Your task to perform on an android device: turn off priority inbox in the gmail app Image 0: 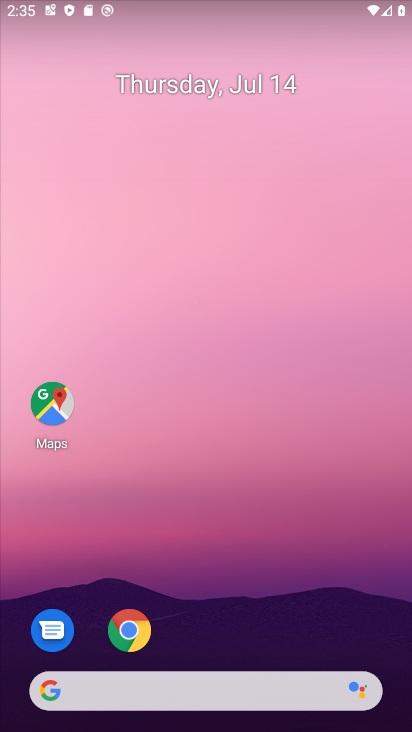
Step 0: press home button
Your task to perform on an android device: turn off priority inbox in the gmail app Image 1: 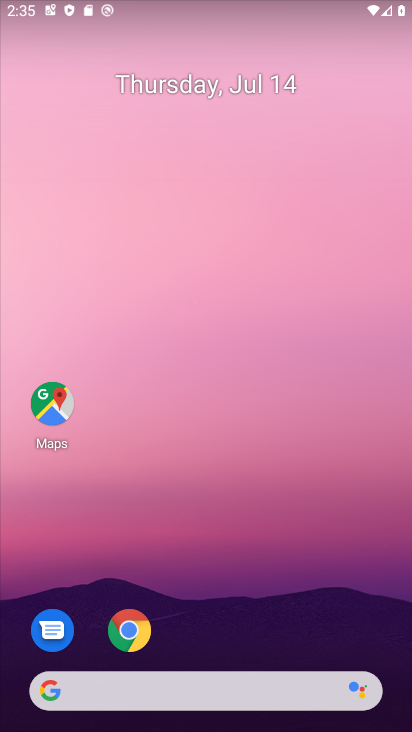
Step 1: drag from (217, 642) to (211, 52)
Your task to perform on an android device: turn off priority inbox in the gmail app Image 2: 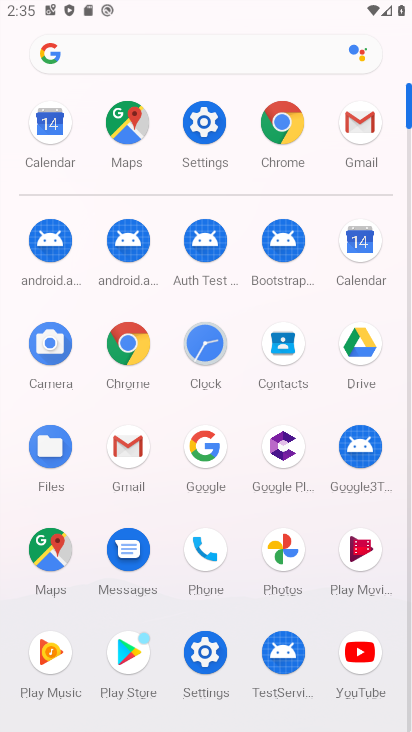
Step 2: click (130, 437)
Your task to perform on an android device: turn off priority inbox in the gmail app Image 3: 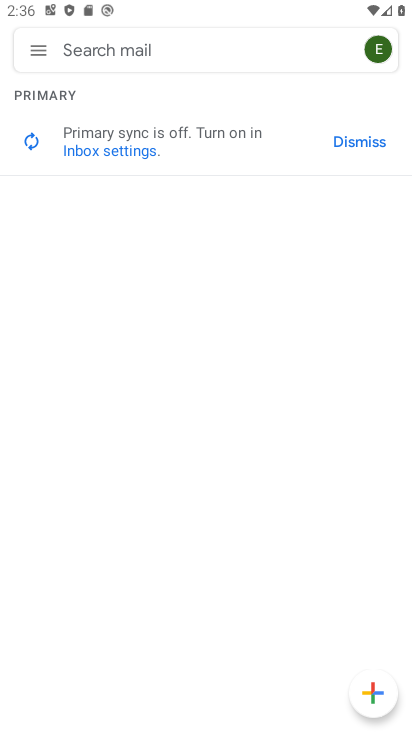
Step 3: click (34, 39)
Your task to perform on an android device: turn off priority inbox in the gmail app Image 4: 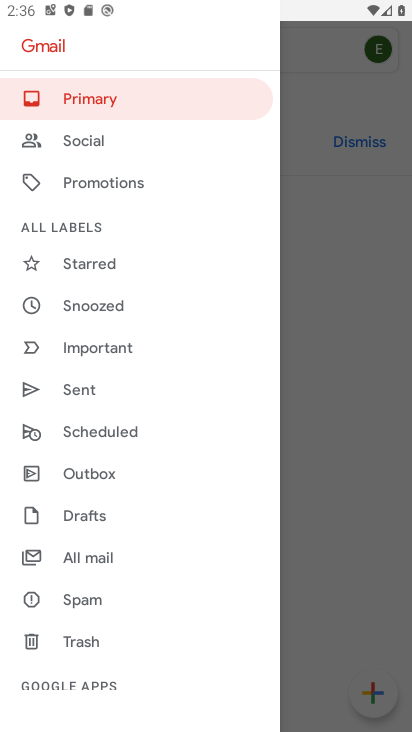
Step 4: drag from (146, 625) to (167, 186)
Your task to perform on an android device: turn off priority inbox in the gmail app Image 5: 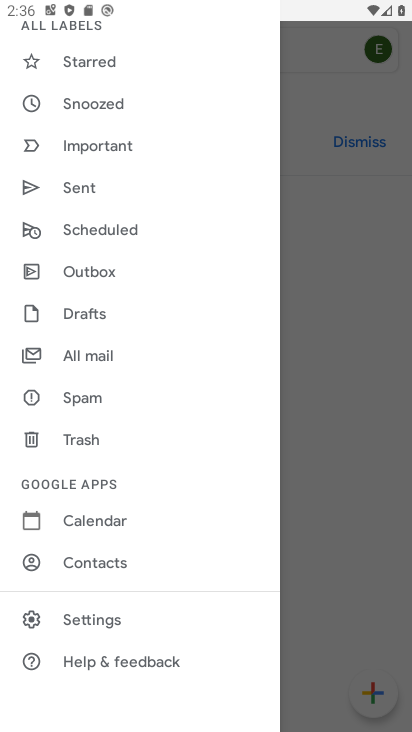
Step 5: click (122, 612)
Your task to perform on an android device: turn off priority inbox in the gmail app Image 6: 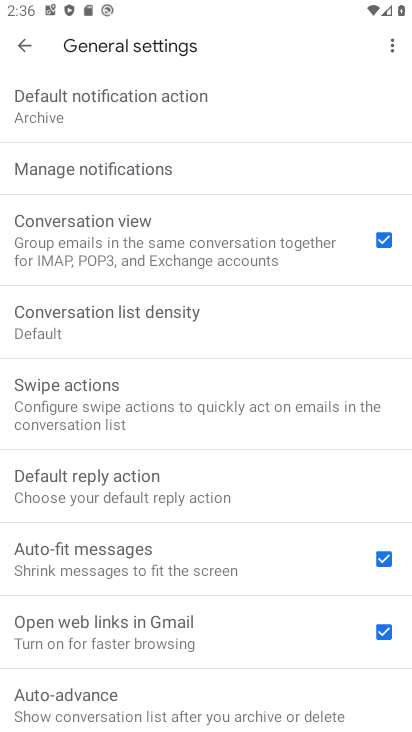
Step 6: drag from (169, 660) to (150, 166)
Your task to perform on an android device: turn off priority inbox in the gmail app Image 7: 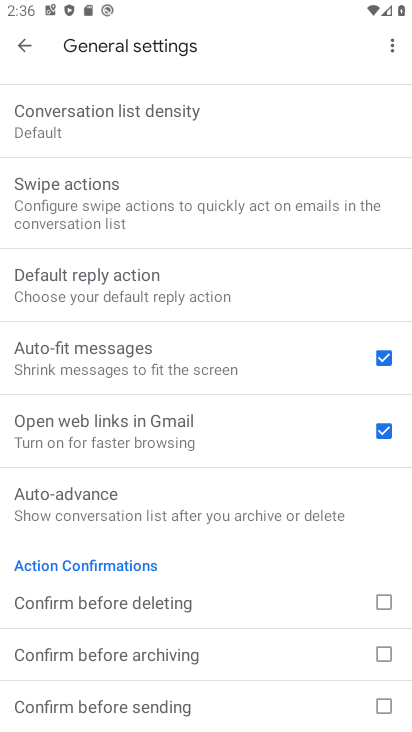
Step 7: click (30, 36)
Your task to perform on an android device: turn off priority inbox in the gmail app Image 8: 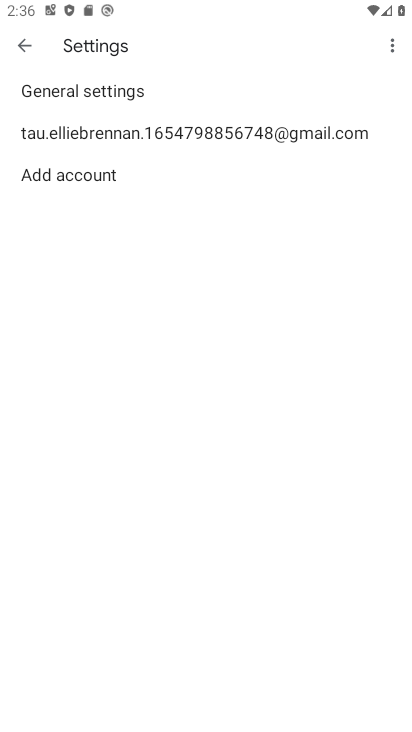
Step 8: click (206, 127)
Your task to perform on an android device: turn off priority inbox in the gmail app Image 9: 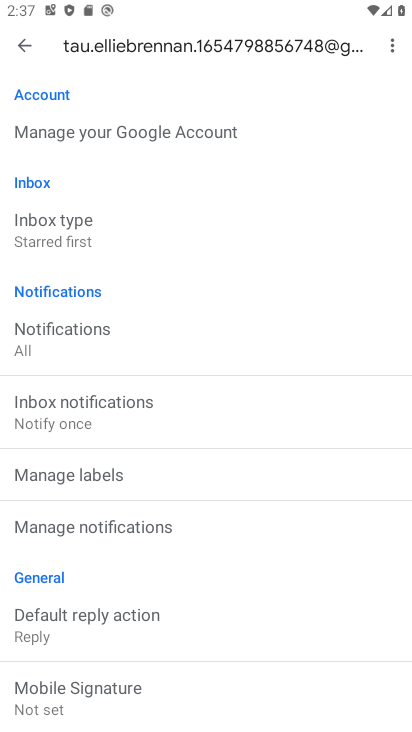
Step 9: click (72, 229)
Your task to perform on an android device: turn off priority inbox in the gmail app Image 10: 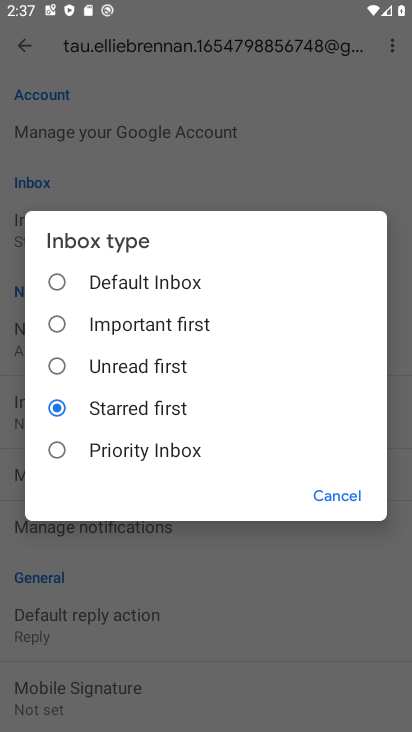
Step 10: click (63, 448)
Your task to perform on an android device: turn off priority inbox in the gmail app Image 11: 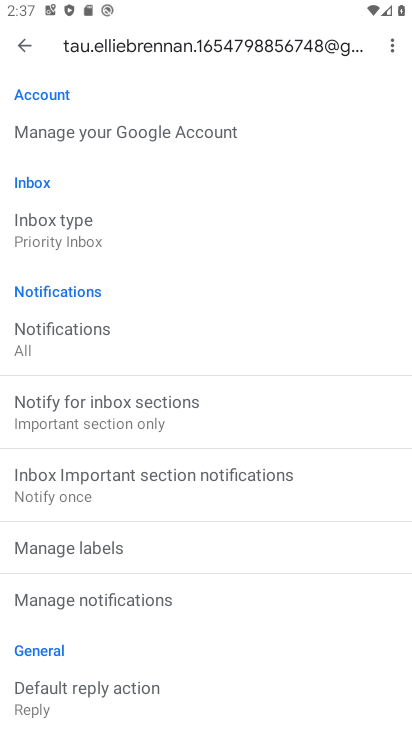
Step 11: task complete